Your task to perform on an android device: allow cookies in the chrome app Image 0: 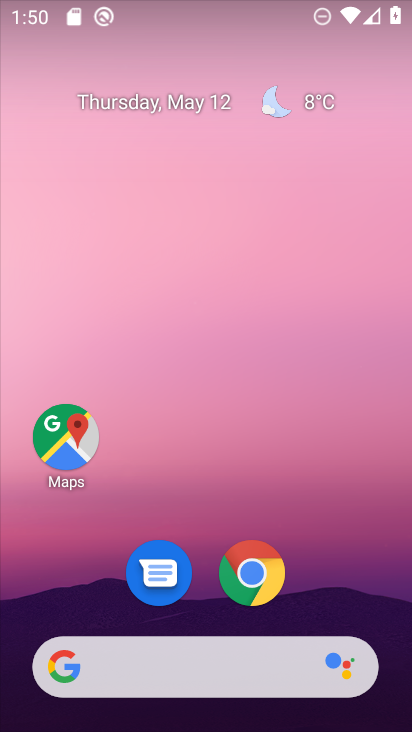
Step 0: drag from (318, 601) to (209, 65)
Your task to perform on an android device: allow cookies in the chrome app Image 1: 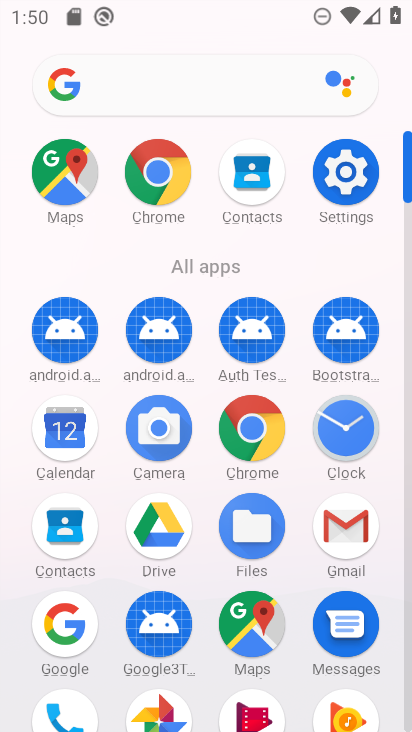
Step 1: click (167, 175)
Your task to perform on an android device: allow cookies in the chrome app Image 2: 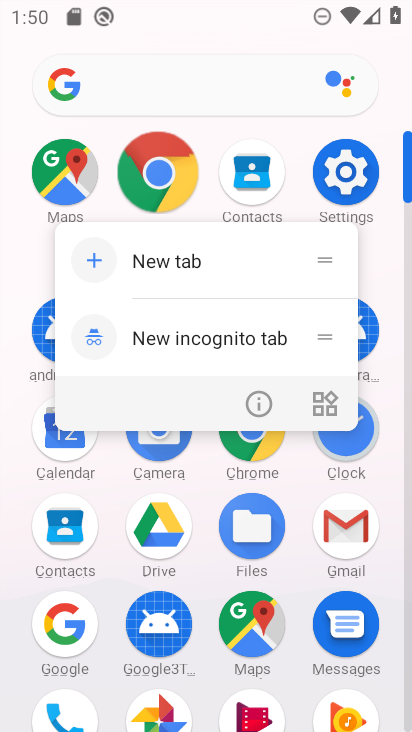
Step 2: click (166, 175)
Your task to perform on an android device: allow cookies in the chrome app Image 3: 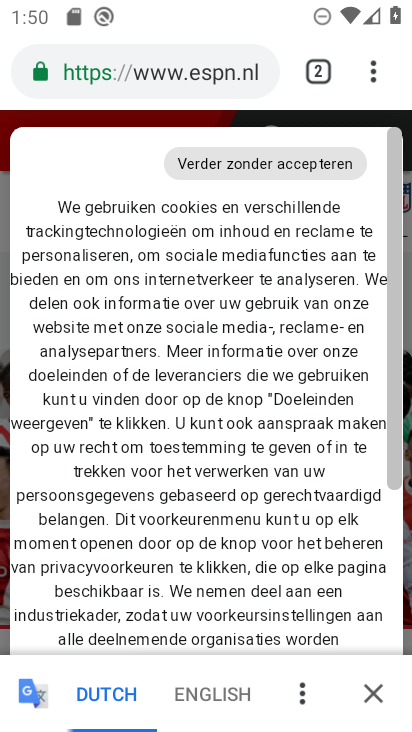
Step 3: click (380, 73)
Your task to perform on an android device: allow cookies in the chrome app Image 4: 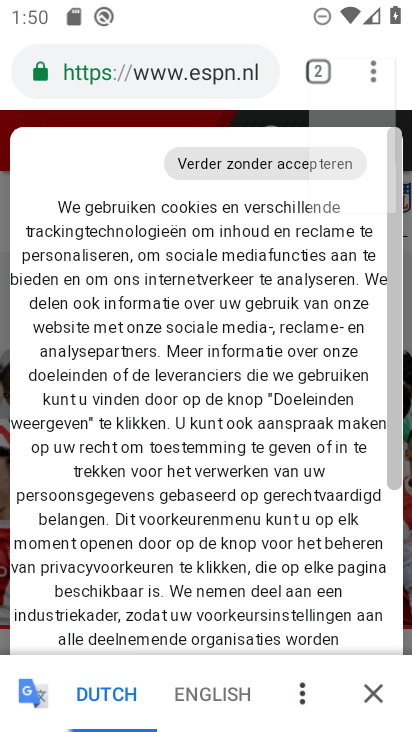
Step 4: drag from (363, 72) to (112, 568)
Your task to perform on an android device: allow cookies in the chrome app Image 5: 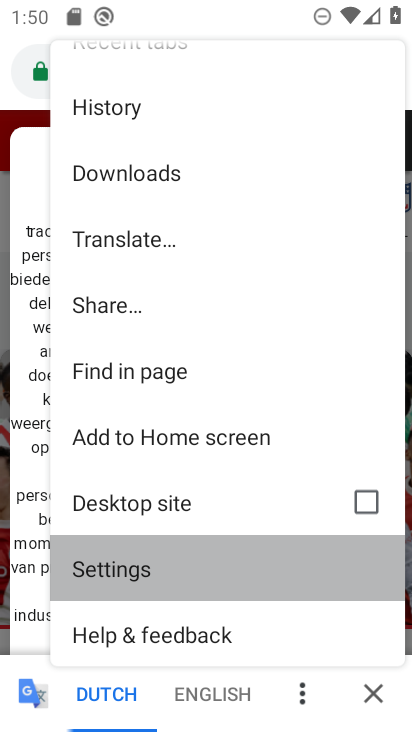
Step 5: click (112, 568)
Your task to perform on an android device: allow cookies in the chrome app Image 6: 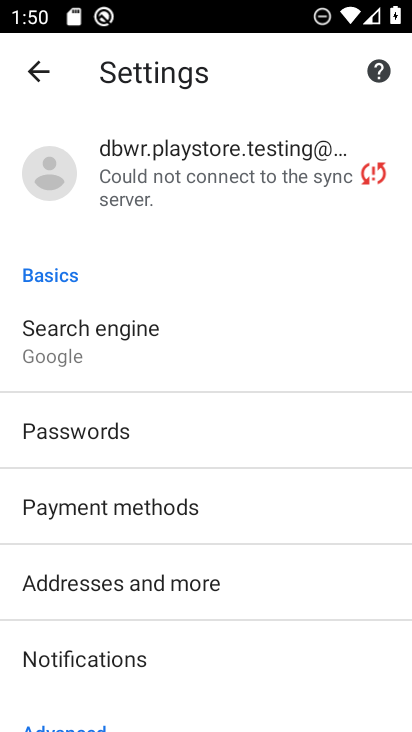
Step 6: drag from (119, 601) to (64, 144)
Your task to perform on an android device: allow cookies in the chrome app Image 7: 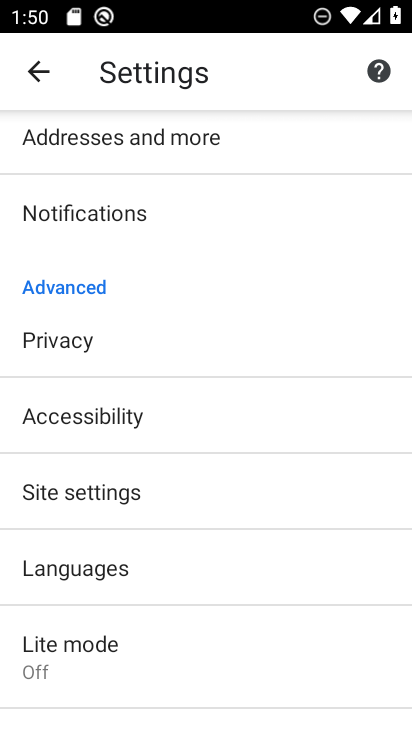
Step 7: click (65, 490)
Your task to perform on an android device: allow cookies in the chrome app Image 8: 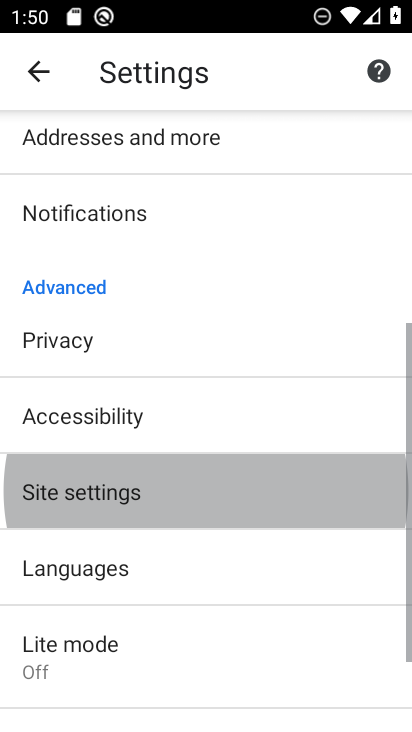
Step 8: click (67, 491)
Your task to perform on an android device: allow cookies in the chrome app Image 9: 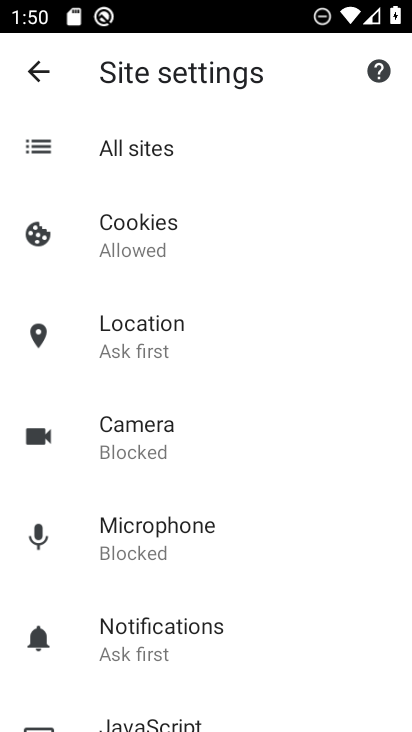
Step 9: click (119, 219)
Your task to perform on an android device: allow cookies in the chrome app Image 10: 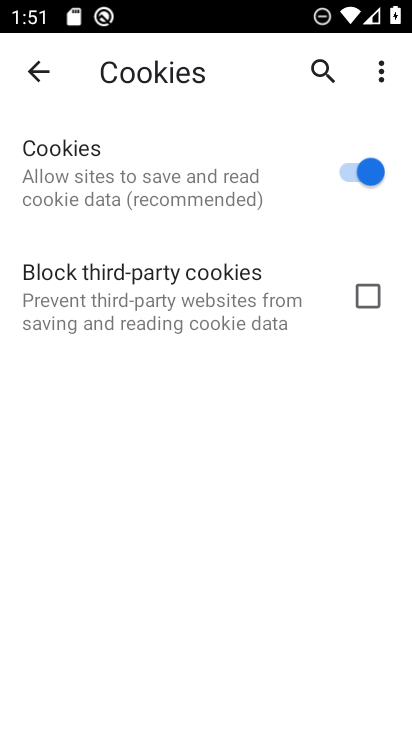
Step 10: task complete